Your task to perform on an android device: see creations saved in the google photos Image 0: 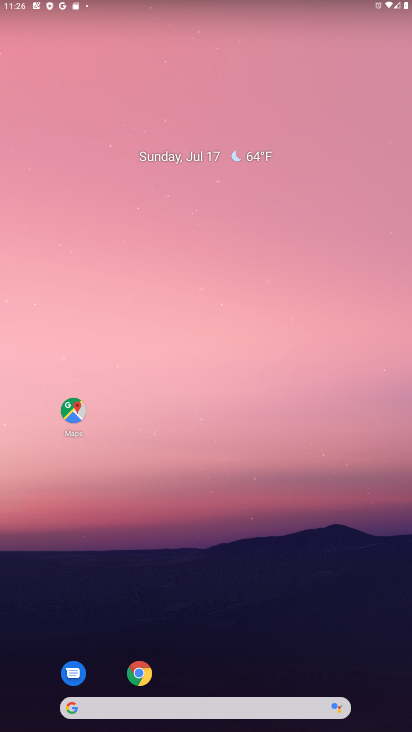
Step 0: drag from (223, 665) to (251, 160)
Your task to perform on an android device: see creations saved in the google photos Image 1: 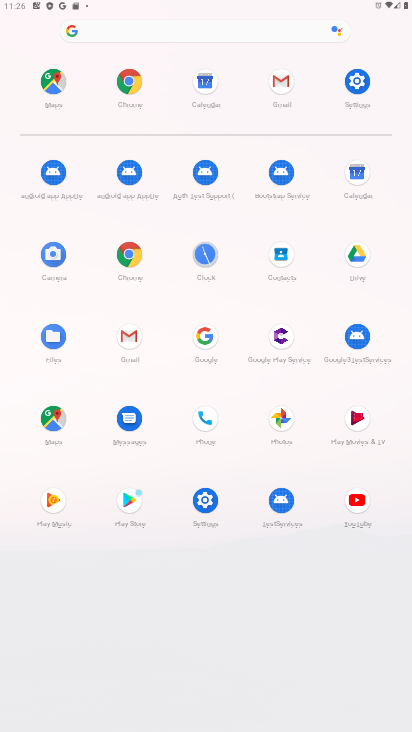
Step 1: click (281, 408)
Your task to perform on an android device: see creations saved in the google photos Image 2: 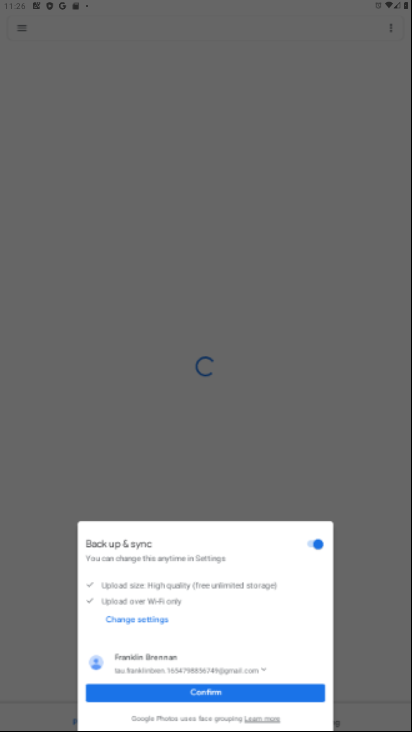
Step 2: click (233, 689)
Your task to perform on an android device: see creations saved in the google photos Image 3: 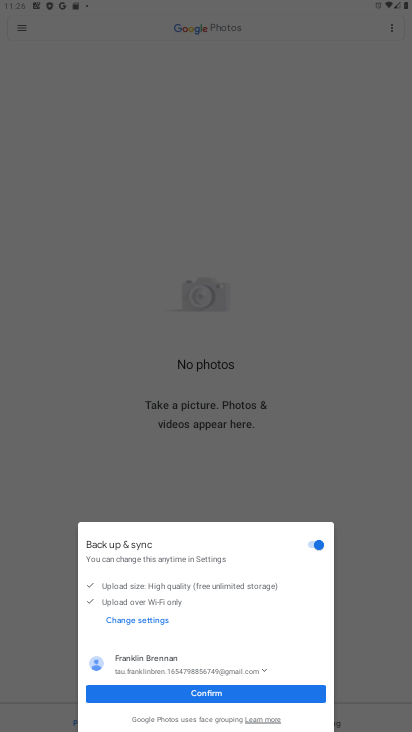
Step 3: click (205, 693)
Your task to perform on an android device: see creations saved in the google photos Image 4: 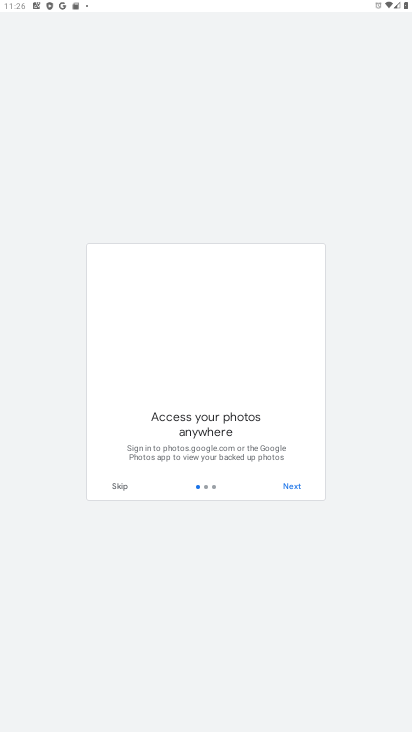
Step 4: click (304, 486)
Your task to perform on an android device: see creations saved in the google photos Image 5: 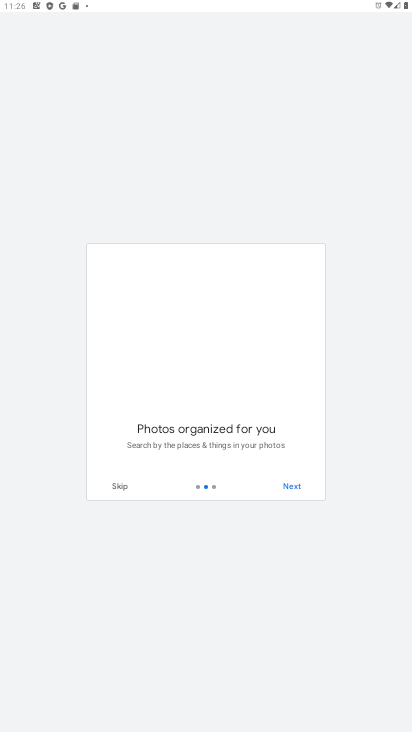
Step 5: click (294, 486)
Your task to perform on an android device: see creations saved in the google photos Image 6: 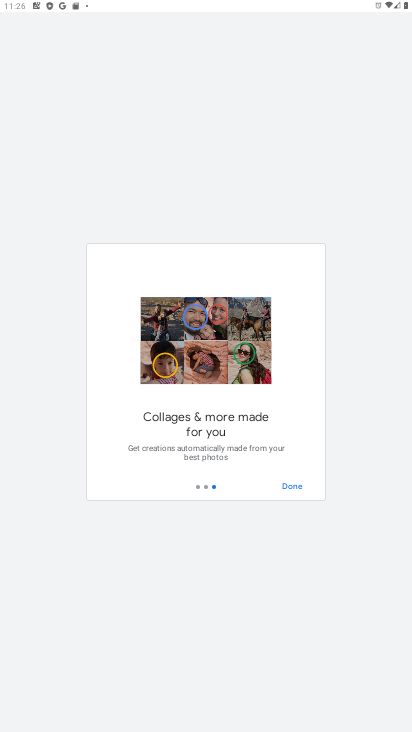
Step 6: click (282, 488)
Your task to perform on an android device: see creations saved in the google photos Image 7: 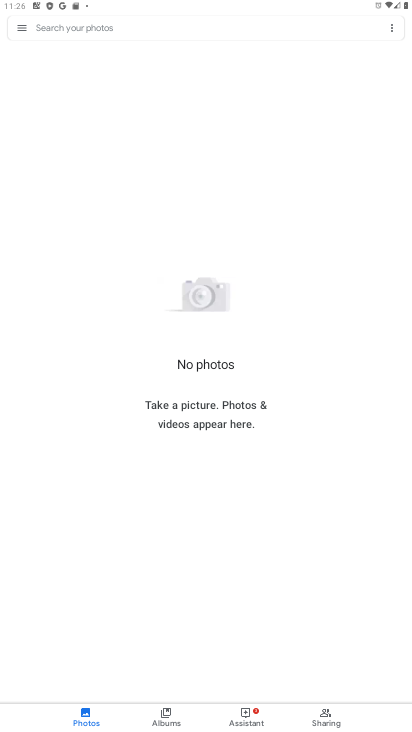
Step 7: click (121, 29)
Your task to perform on an android device: see creations saved in the google photos Image 8: 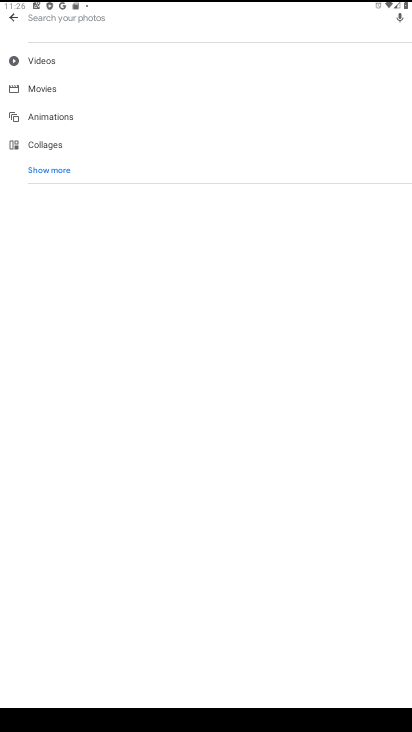
Step 8: click (40, 171)
Your task to perform on an android device: see creations saved in the google photos Image 9: 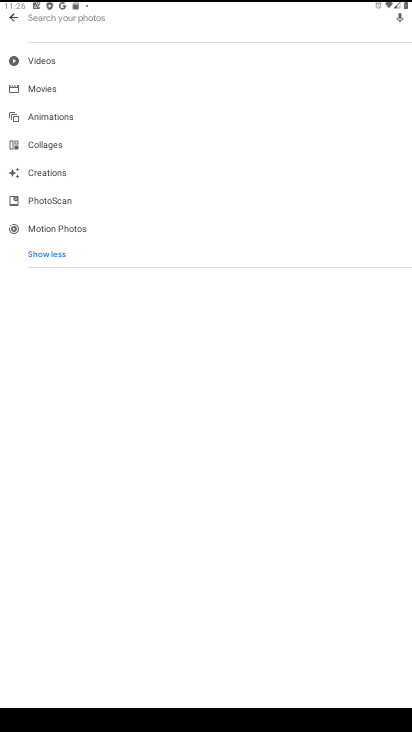
Step 9: click (37, 170)
Your task to perform on an android device: see creations saved in the google photos Image 10: 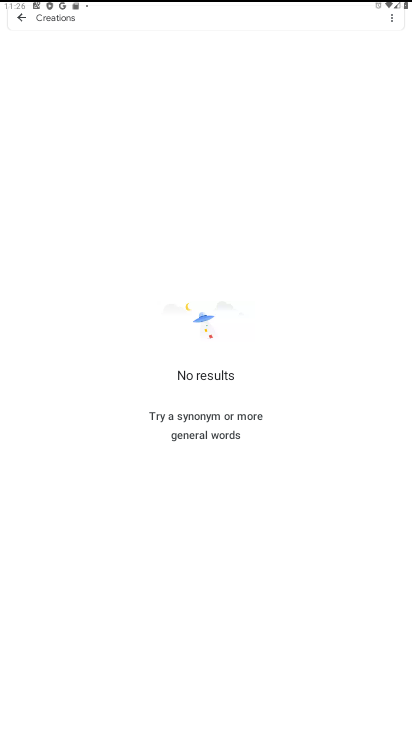
Step 10: task complete